Your task to perform on an android device: Open CNN.com Image 0: 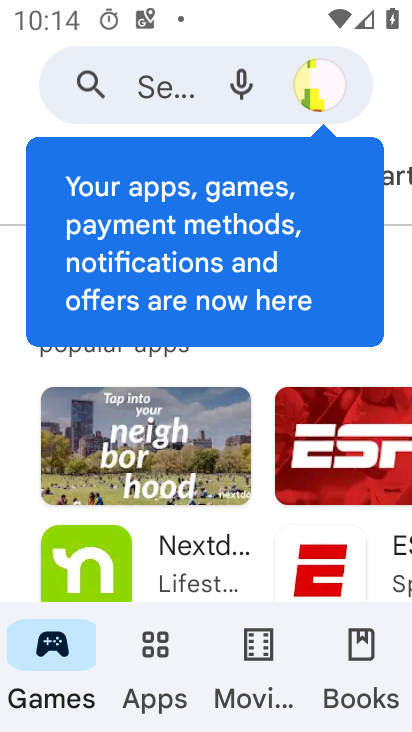
Step 0: press home button
Your task to perform on an android device: Open CNN.com Image 1: 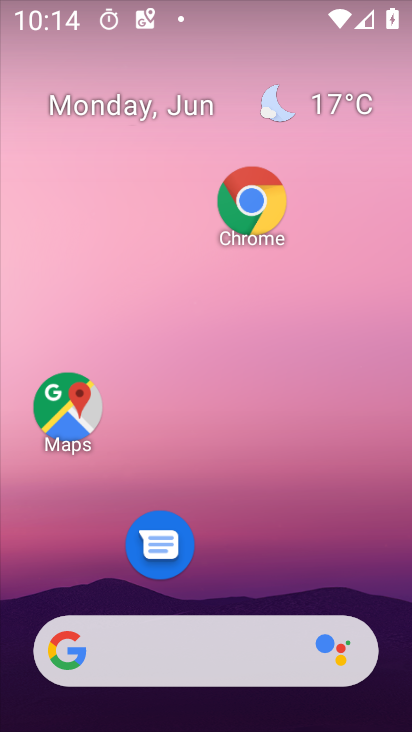
Step 1: click (225, 207)
Your task to perform on an android device: Open CNN.com Image 2: 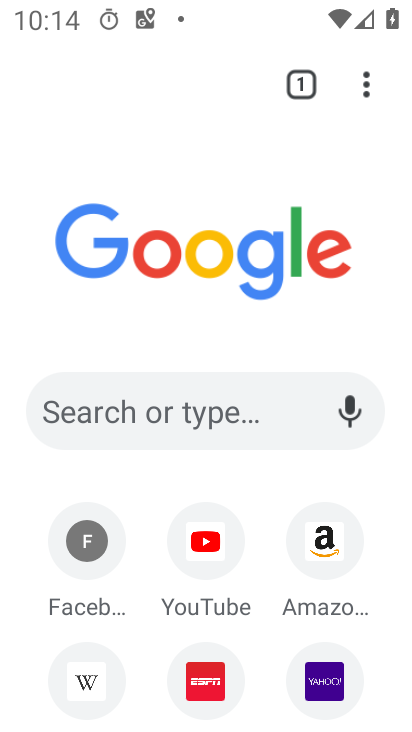
Step 2: click (185, 436)
Your task to perform on an android device: Open CNN.com Image 3: 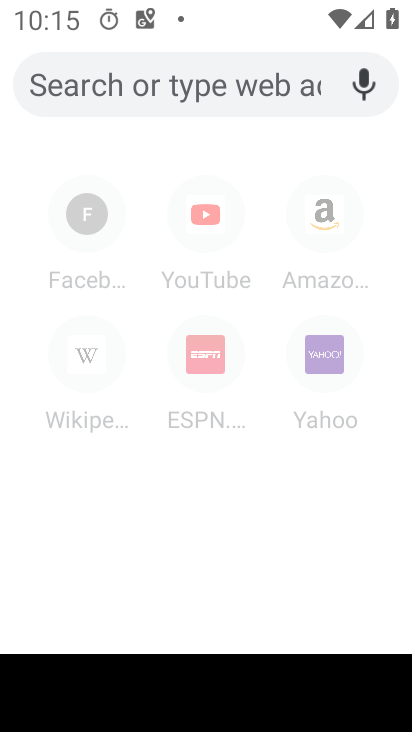
Step 3: type "cnn"
Your task to perform on an android device: Open CNN.com Image 4: 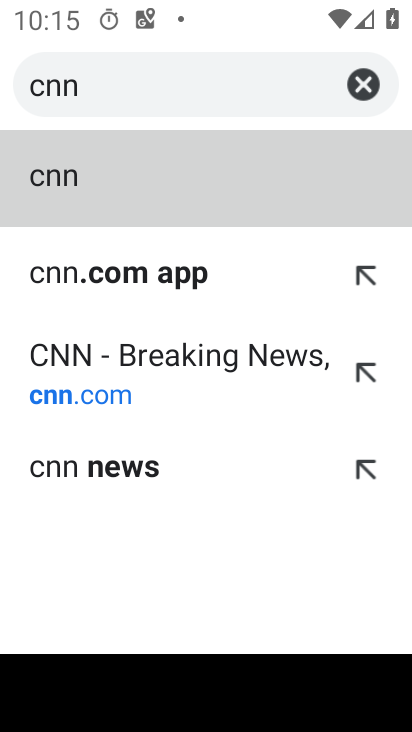
Step 4: click (206, 363)
Your task to perform on an android device: Open CNN.com Image 5: 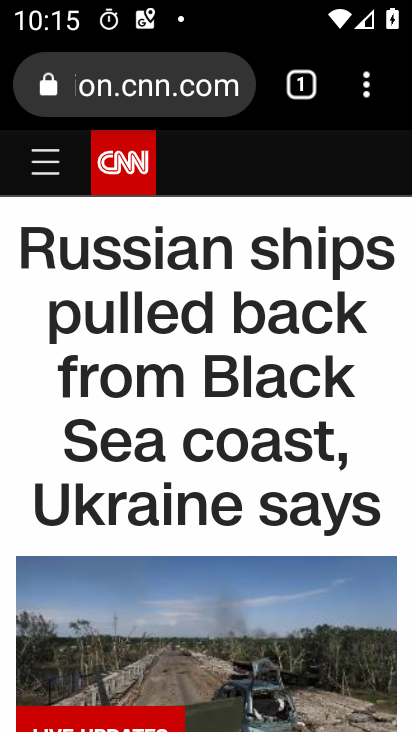
Step 5: task complete